Your task to perform on an android device: turn off translation in the chrome app Image 0: 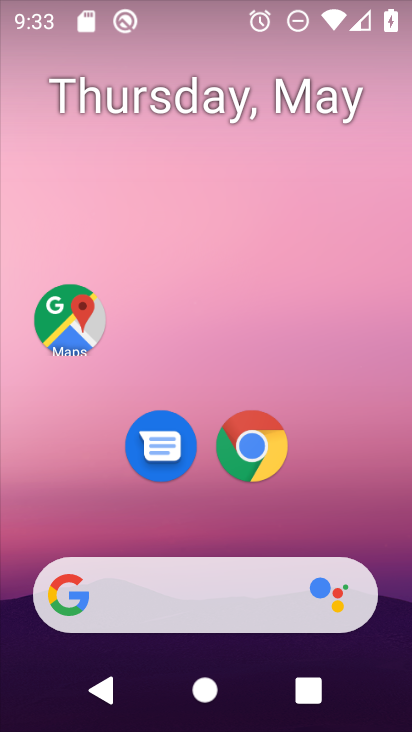
Step 0: drag from (371, 533) to (363, 147)
Your task to perform on an android device: turn off translation in the chrome app Image 1: 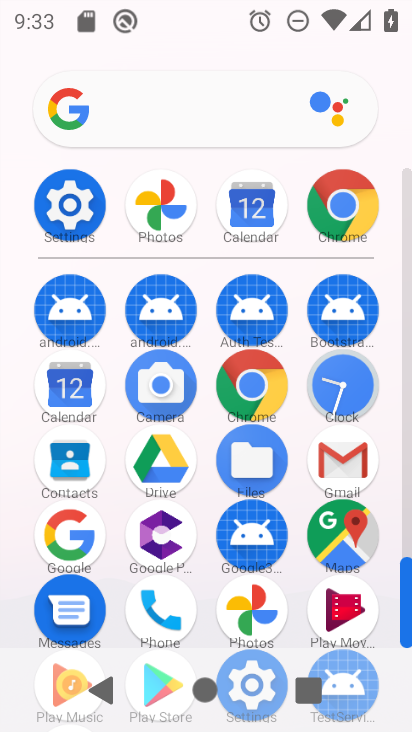
Step 1: click (269, 375)
Your task to perform on an android device: turn off translation in the chrome app Image 2: 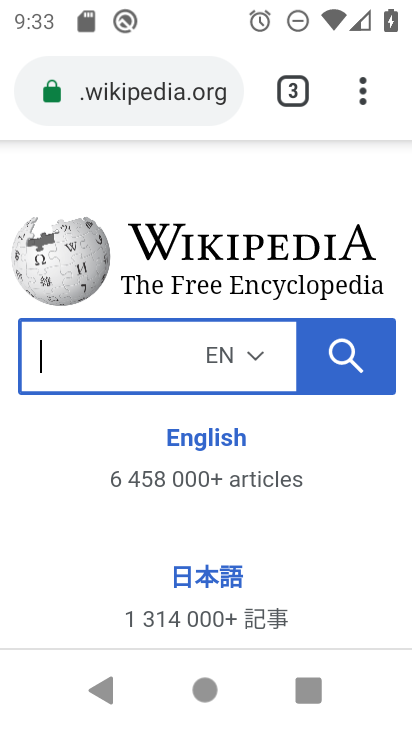
Step 2: drag from (361, 102) to (237, 483)
Your task to perform on an android device: turn off translation in the chrome app Image 3: 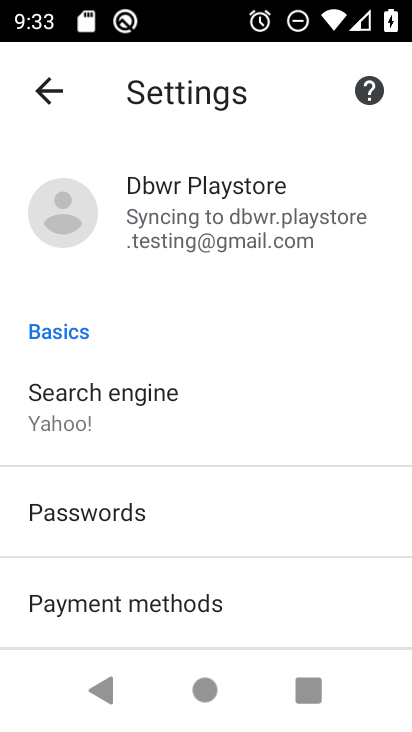
Step 3: drag from (273, 611) to (303, 374)
Your task to perform on an android device: turn off translation in the chrome app Image 4: 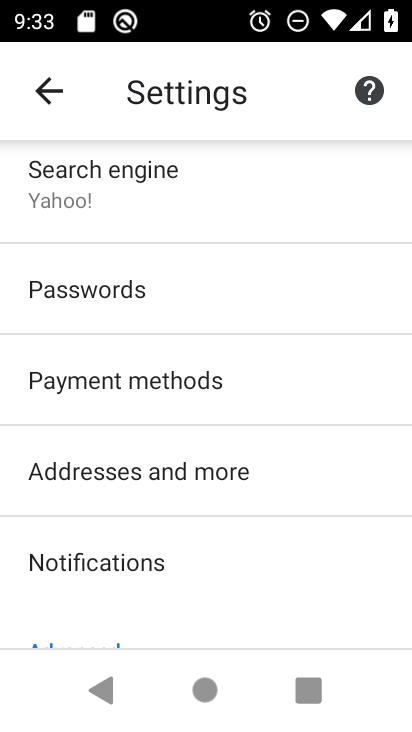
Step 4: drag from (317, 288) to (320, 522)
Your task to perform on an android device: turn off translation in the chrome app Image 5: 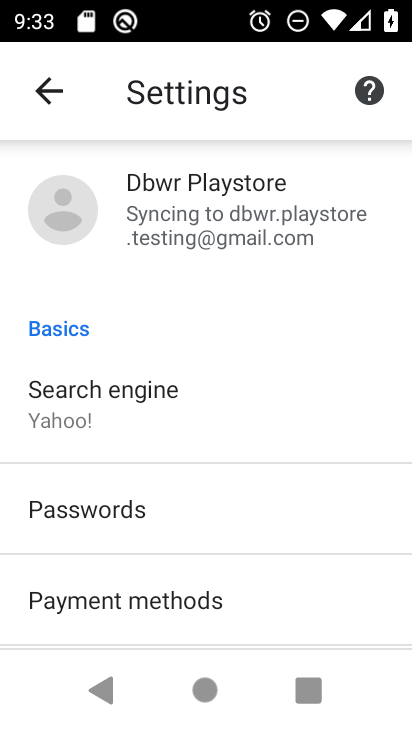
Step 5: drag from (308, 576) to (324, 280)
Your task to perform on an android device: turn off translation in the chrome app Image 6: 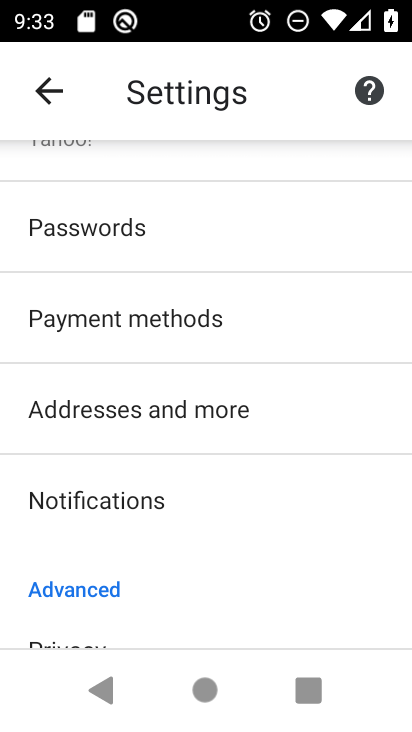
Step 6: drag from (314, 571) to (328, 230)
Your task to perform on an android device: turn off translation in the chrome app Image 7: 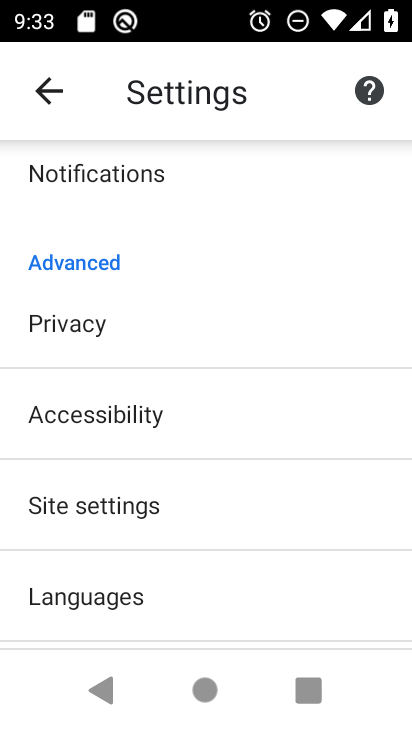
Step 7: drag from (252, 591) to (293, 321)
Your task to perform on an android device: turn off translation in the chrome app Image 8: 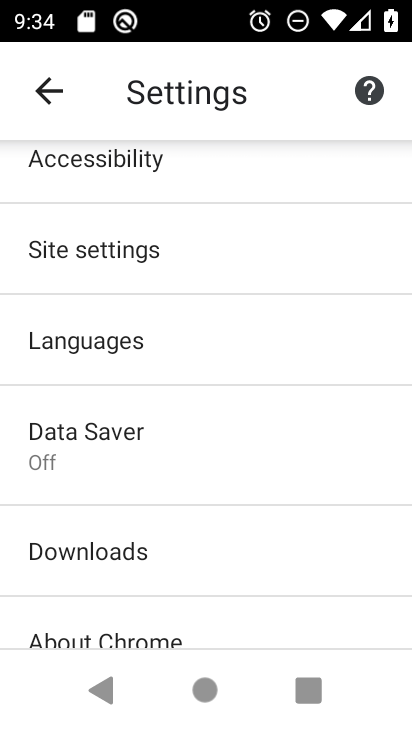
Step 8: click (190, 350)
Your task to perform on an android device: turn off translation in the chrome app Image 9: 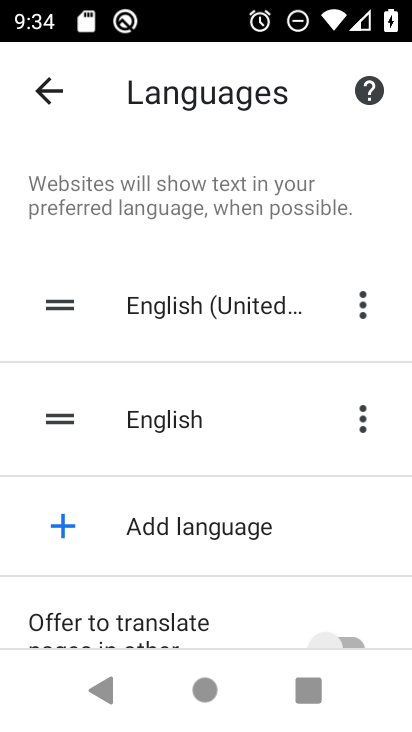
Step 9: task complete